Your task to perform on an android device: turn off priority inbox in the gmail app Image 0: 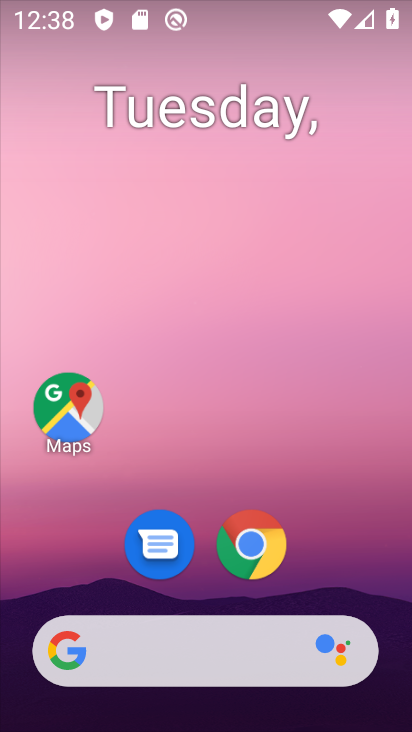
Step 0: drag from (405, 651) to (345, 109)
Your task to perform on an android device: turn off priority inbox in the gmail app Image 1: 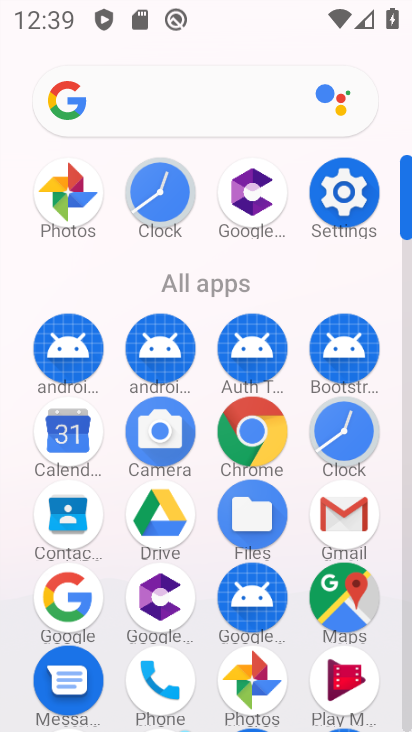
Step 1: click (407, 700)
Your task to perform on an android device: turn off priority inbox in the gmail app Image 2: 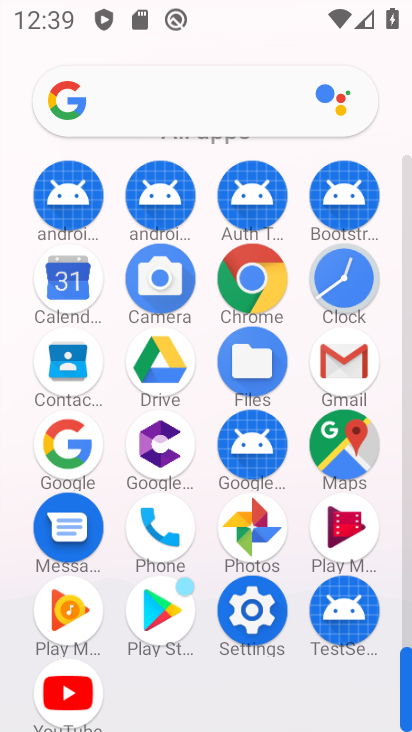
Step 2: click (344, 360)
Your task to perform on an android device: turn off priority inbox in the gmail app Image 3: 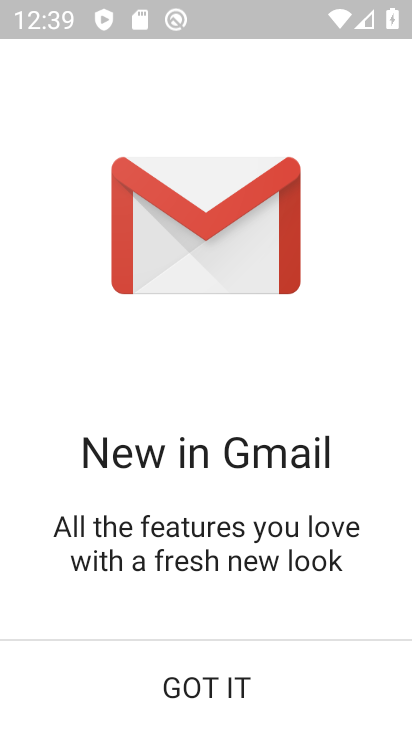
Step 3: click (195, 692)
Your task to perform on an android device: turn off priority inbox in the gmail app Image 4: 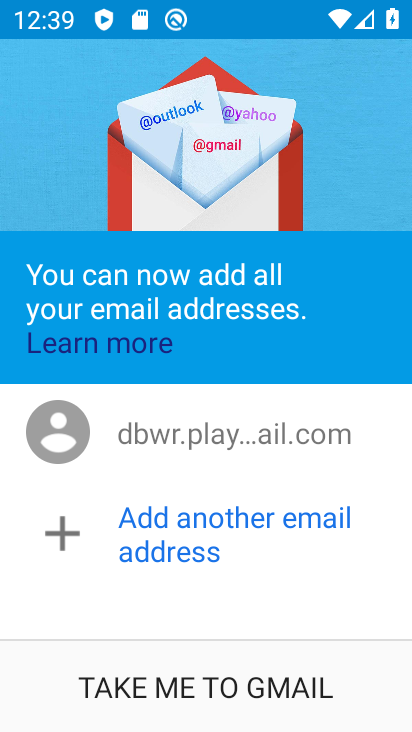
Step 4: click (195, 692)
Your task to perform on an android device: turn off priority inbox in the gmail app Image 5: 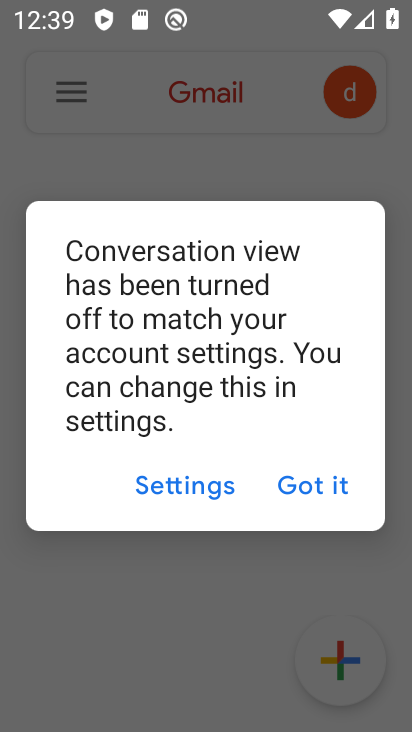
Step 5: click (310, 480)
Your task to perform on an android device: turn off priority inbox in the gmail app Image 6: 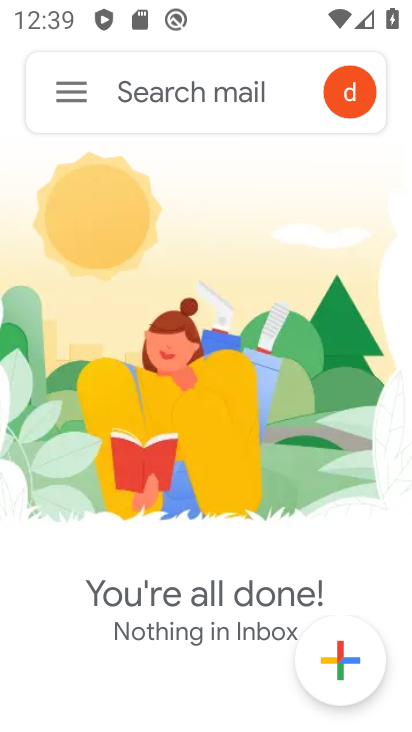
Step 6: click (65, 92)
Your task to perform on an android device: turn off priority inbox in the gmail app Image 7: 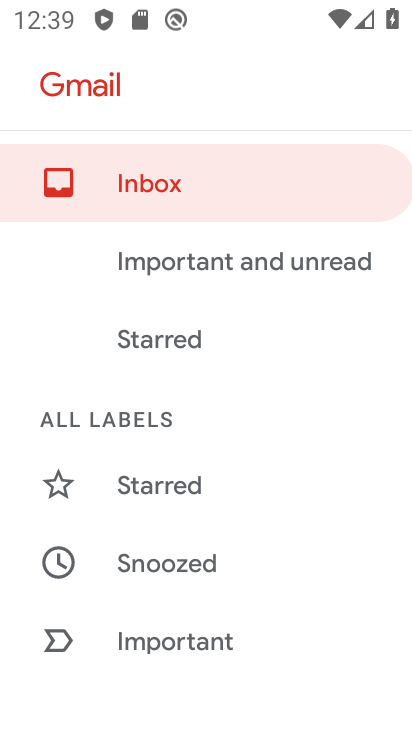
Step 7: drag from (272, 532) to (282, 203)
Your task to perform on an android device: turn off priority inbox in the gmail app Image 8: 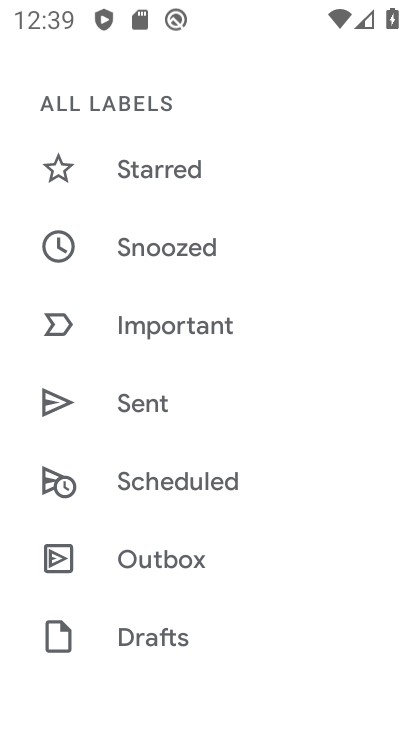
Step 8: drag from (272, 615) to (274, 360)
Your task to perform on an android device: turn off priority inbox in the gmail app Image 9: 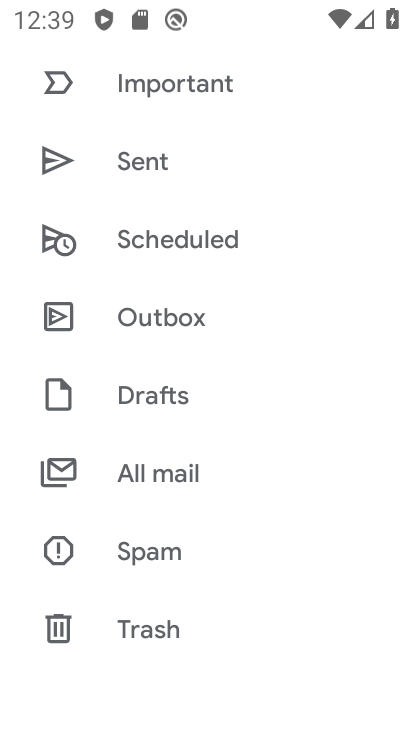
Step 9: drag from (239, 647) to (287, 291)
Your task to perform on an android device: turn off priority inbox in the gmail app Image 10: 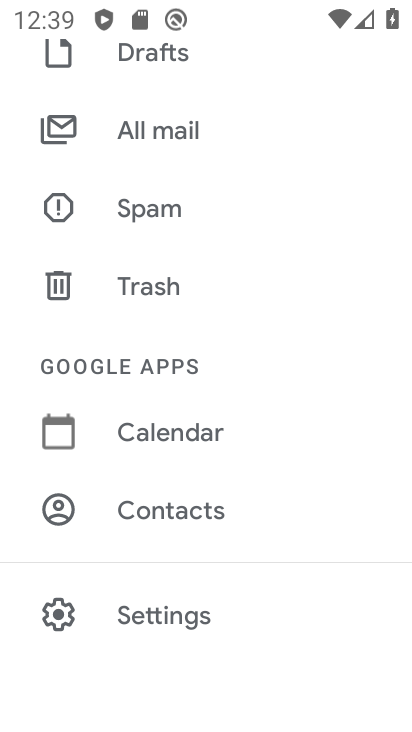
Step 10: click (180, 607)
Your task to perform on an android device: turn off priority inbox in the gmail app Image 11: 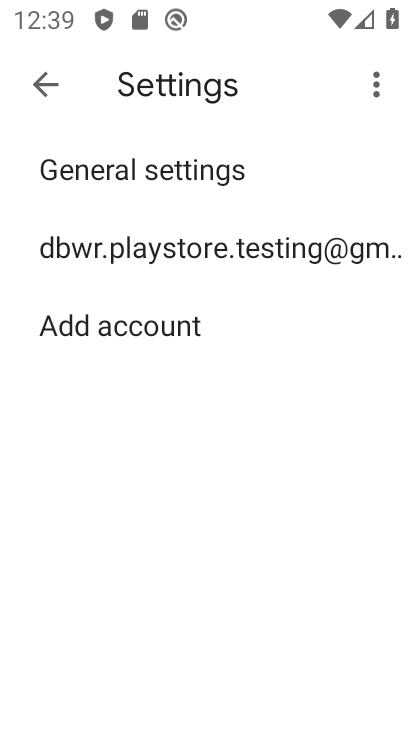
Step 11: click (185, 238)
Your task to perform on an android device: turn off priority inbox in the gmail app Image 12: 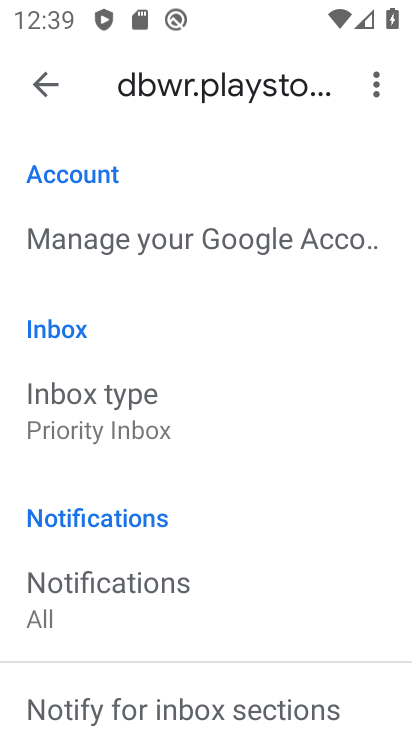
Step 12: click (75, 399)
Your task to perform on an android device: turn off priority inbox in the gmail app Image 13: 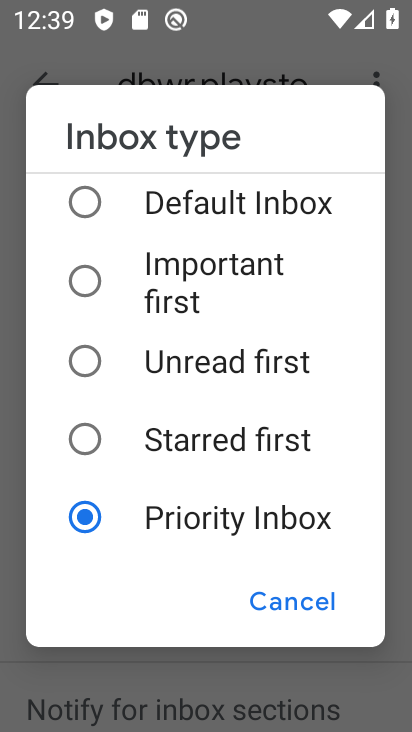
Step 13: click (83, 200)
Your task to perform on an android device: turn off priority inbox in the gmail app Image 14: 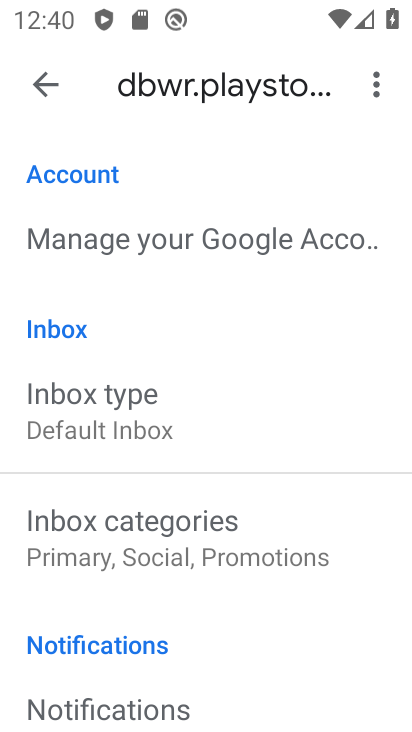
Step 14: task complete